Your task to perform on an android device: turn on the 24-hour format for clock Image 0: 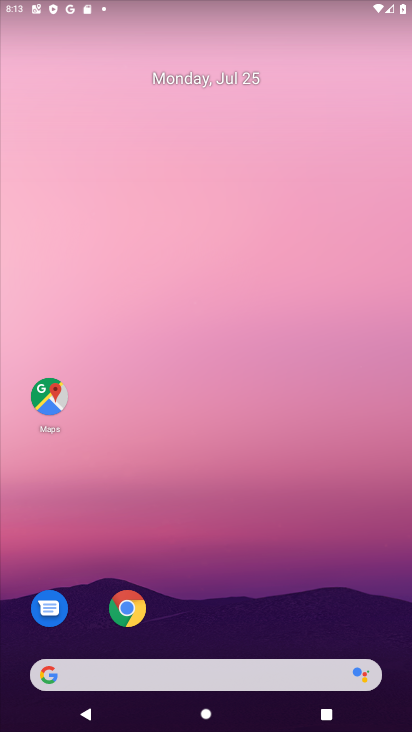
Step 0: drag from (205, 626) to (255, 195)
Your task to perform on an android device: turn on the 24-hour format for clock Image 1: 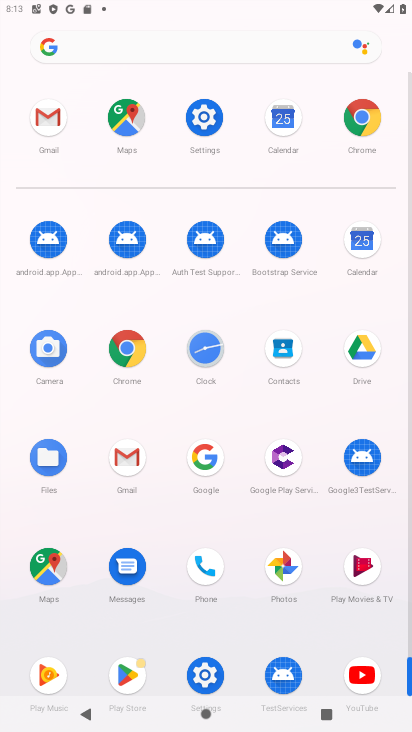
Step 1: click (221, 363)
Your task to perform on an android device: turn on the 24-hour format for clock Image 2: 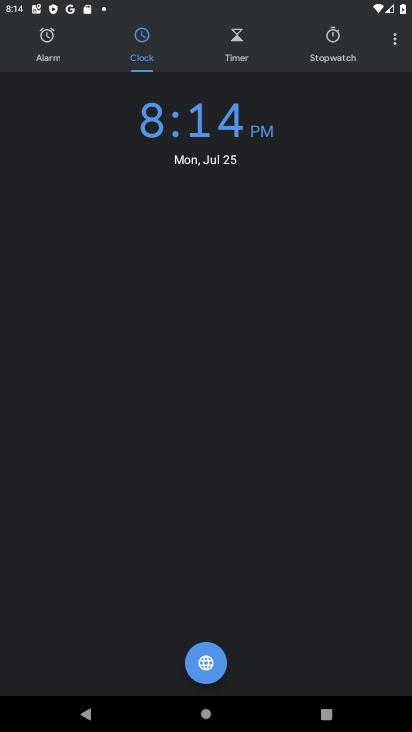
Step 2: click (393, 42)
Your task to perform on an android device: turn on the 24-hour format for clock Image 3: 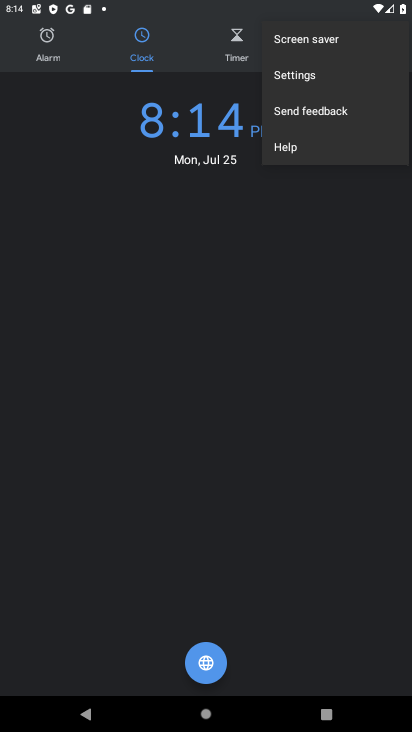
Step 3: click (276, 82)
Your task to perform on an android device: turn on the 24-hour format for clock Image 4: 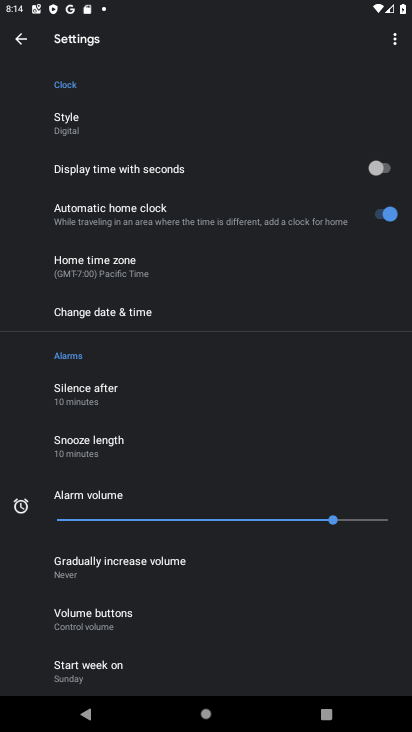
Step 4: click (143, 310)
Your task to perform on an android device: turn on the 24-hour format for clock Image 5: 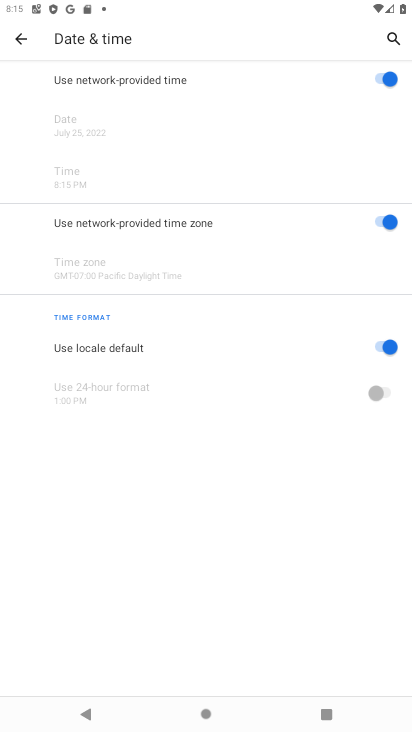
Step 5: task complete